Your task to perform on an android device: all mails in gmail Image 0: 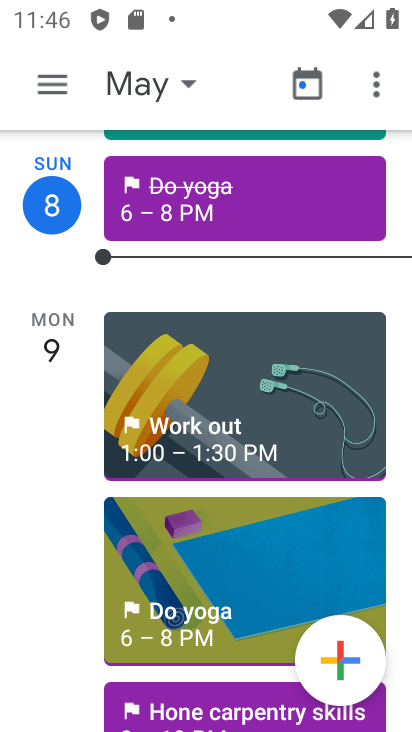
Step 0: press home button
Your task to perform on an android device: all mails in gmail Image 1: 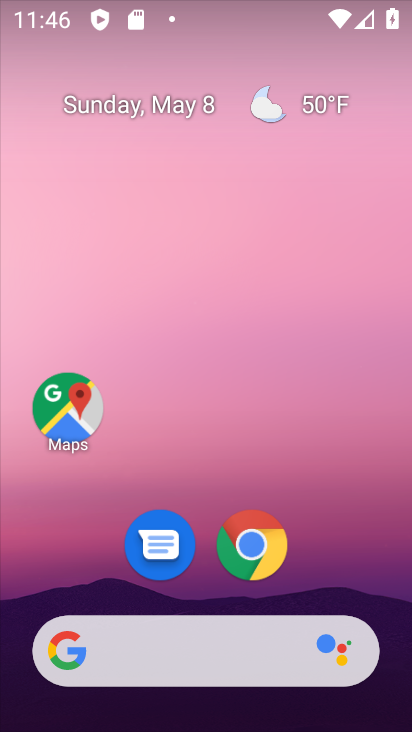
Step 1: drag from (197, 585) to (189, 276)
Your task to perform on an android device: all mails in gmail Image 2: 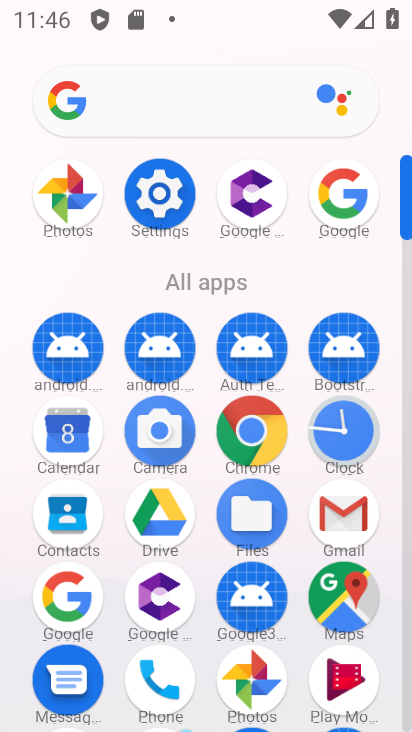
Step 2: click (316, 497)
Your task to perform on an android device: all mails in gmail Image 3: 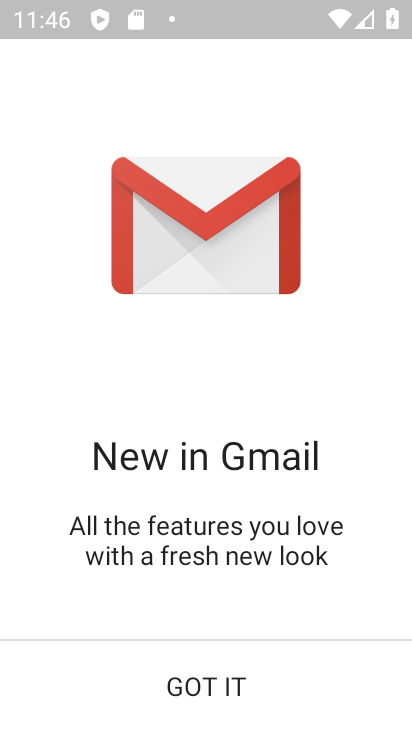
Step 3: click (253, 679)
Your task to perform on an android device: all mails in gmail Image 4: 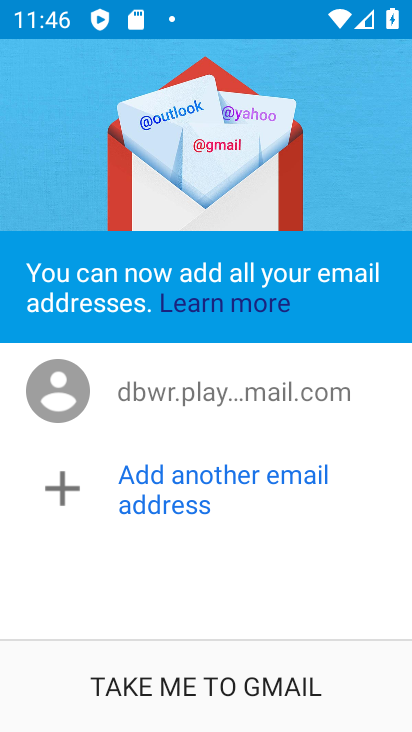
Step 4: click (254, 678)
Your task to perform on an android device: all mails in gmail Image 5: 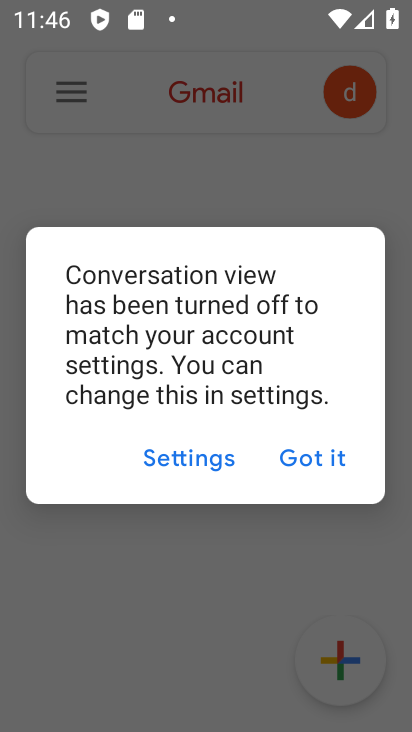
Step 5: click (310, 460)
Your task to perform on an android device: all mails in gmail Image 6: 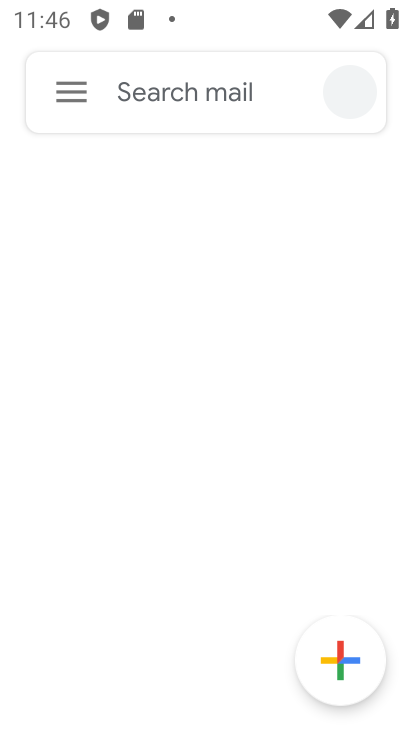
Step 6: click (73, 74)
Your task to perform on an android device: all mails in gmail Image 7: 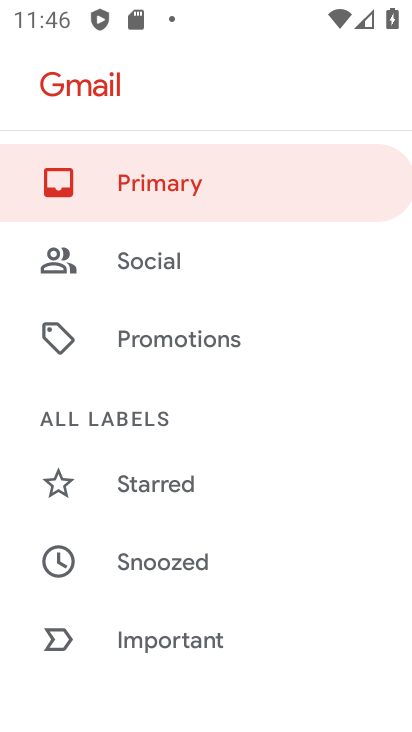
Step 7: drag from (191, 641) to (208, 334)
Your task to perform on an android device: all mails in gmail Image 8: 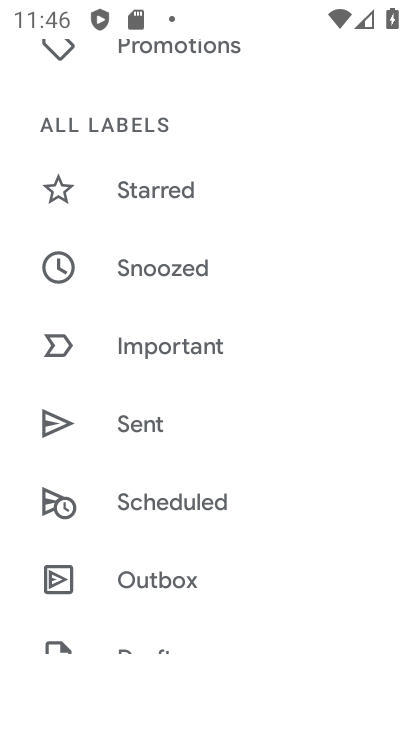
Step 8: drag from (185, 565) to (208, 328)
Your task to perform on an android device: all mails in gmail Image 9: 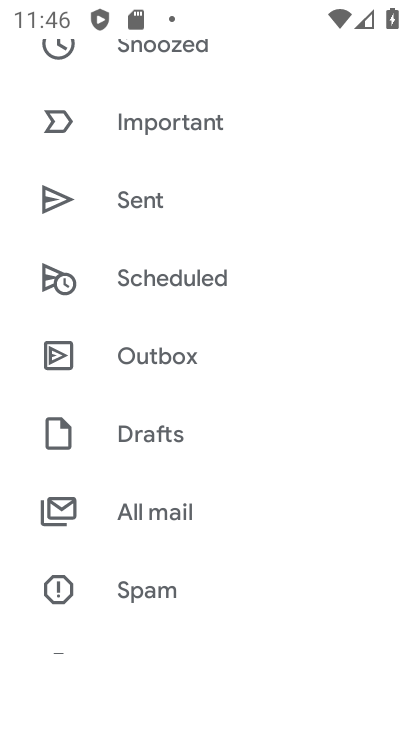
Step 9: click (162, 520)
Your task to perform on an android device: all mails in gmail Image 10: 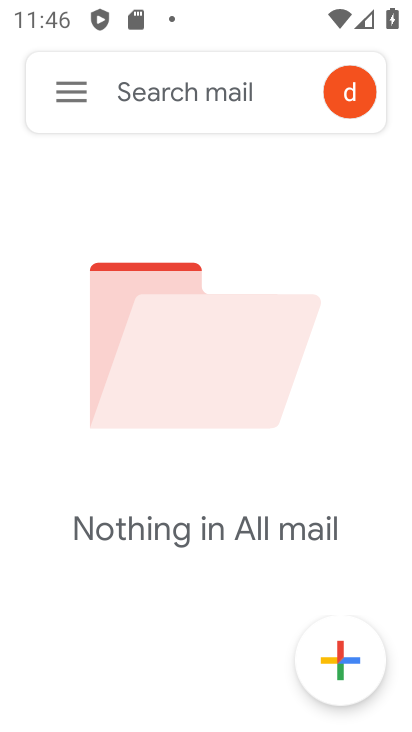
Step 10: task complete